Your task to perform on an android device: refresh tabs in the chrome app Image 0: 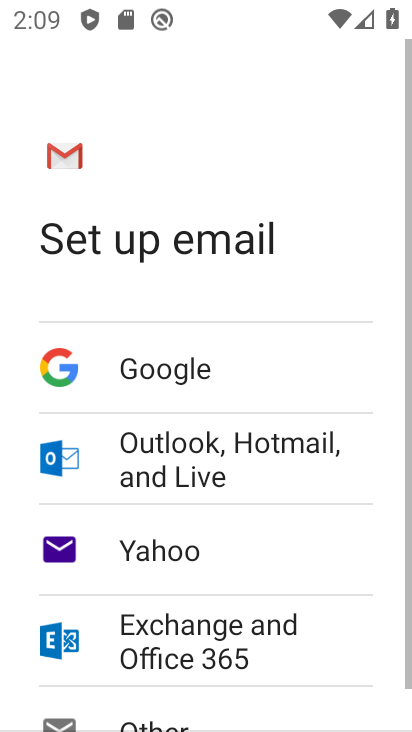
Step 0: press home button
Your task to perform on an android device: refresh tabs in the chrome app Image 1: 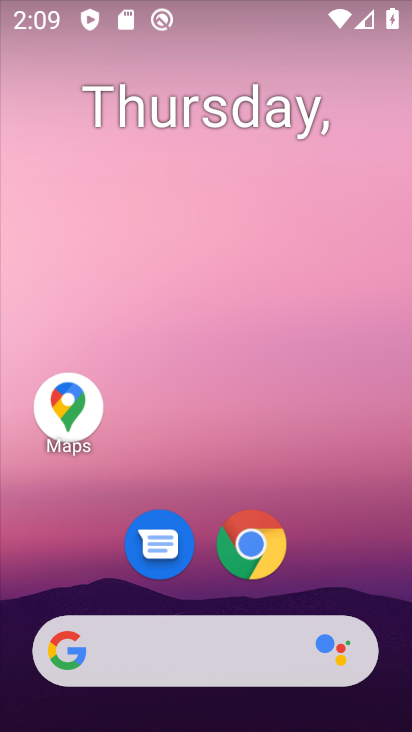
Step 1: click (269, 536)
Your task to perform on an android device: refresh tabs in the chrome app Image 2: 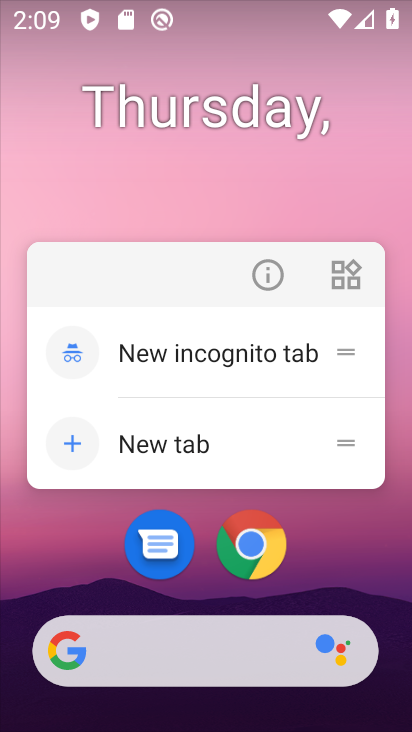
Step 2: click (254, 538)
Your task to perform on an android device: refresh tabs in the chrome app Image 3: 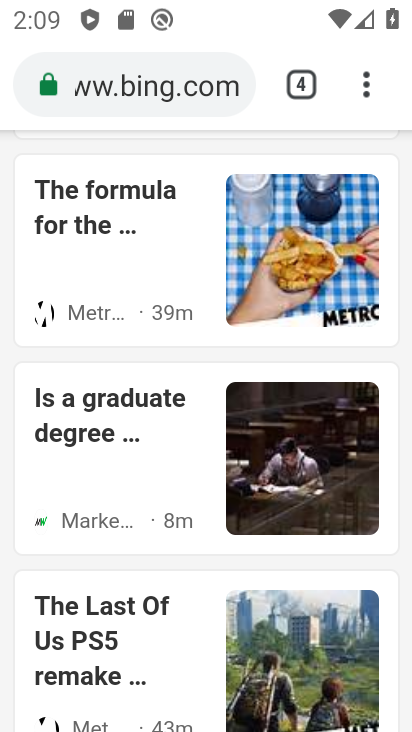
Step 3: click (366, 88)
Your task to perform on an android device: refresh tabs in the chrome app Image 4: 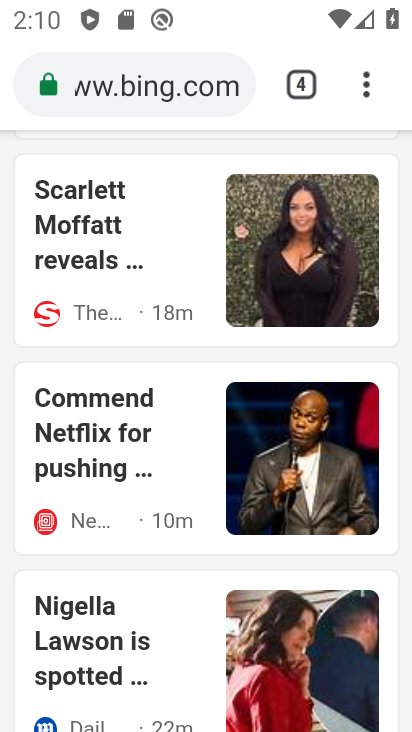
Step 4: click (365, 85)
Your task to perform on an android device: refresh tabs in the chrome app Image 5: 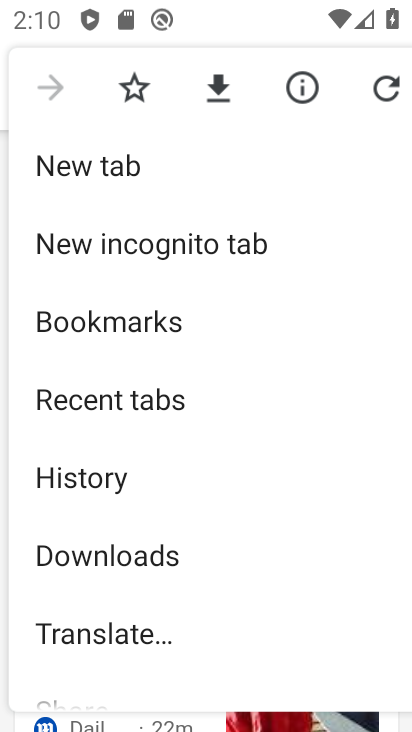
Step 5: click (379, 85)
Your task to perform on an android device: refresh tabs in the chrome app Image 6: 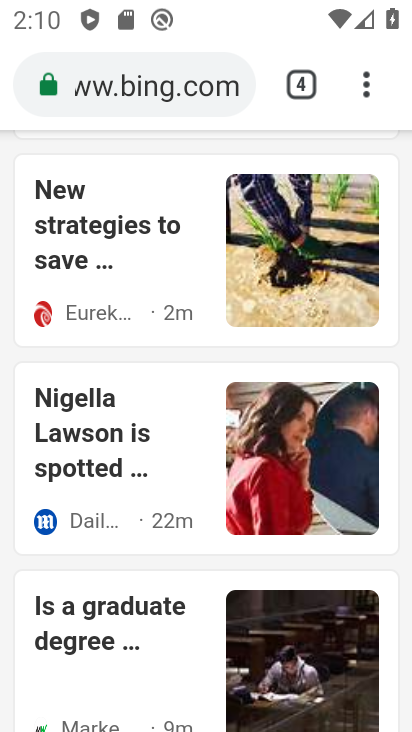
Step 6: task complete